Your task to perform on an android device: change the upload size in google photos Image 0: 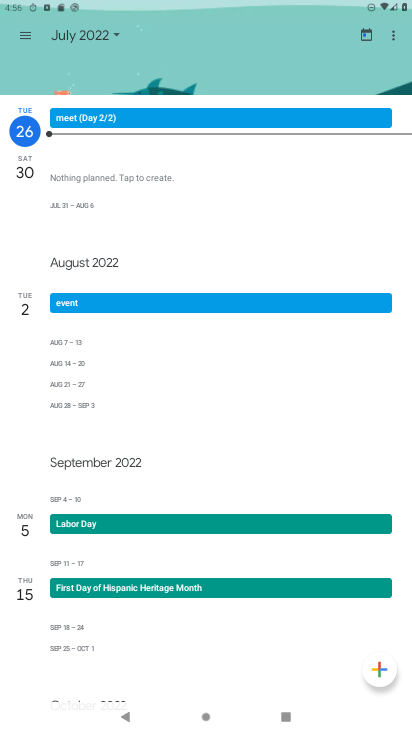
Step 0: press home button
Your task to perform on an android device: change the upload size in google photos Image 1: 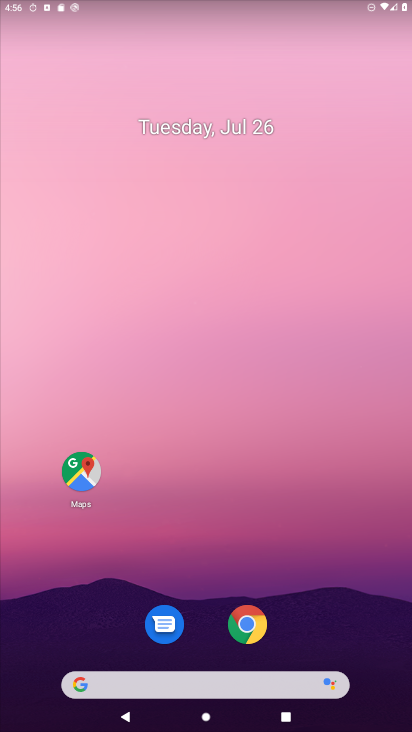
Step 1: drag from (304, 657) to (341, 52)
Your task to perform on an android device: change the upload size in google photos Image 2: 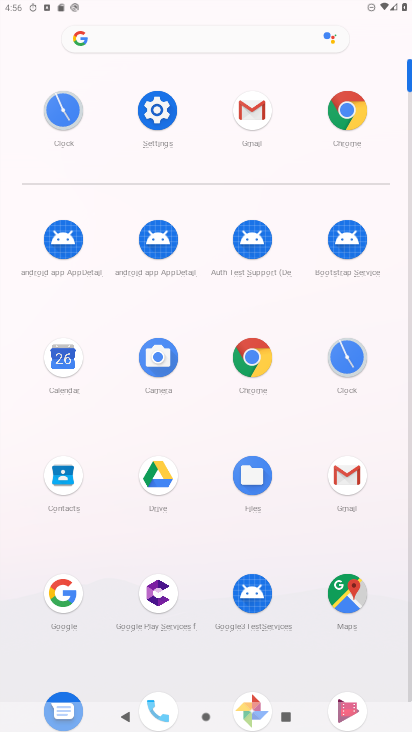
Step 2: drag from (311, 624) to (322, 210)
Your task to perform on an android device: change the upload size in google photos Image 3: 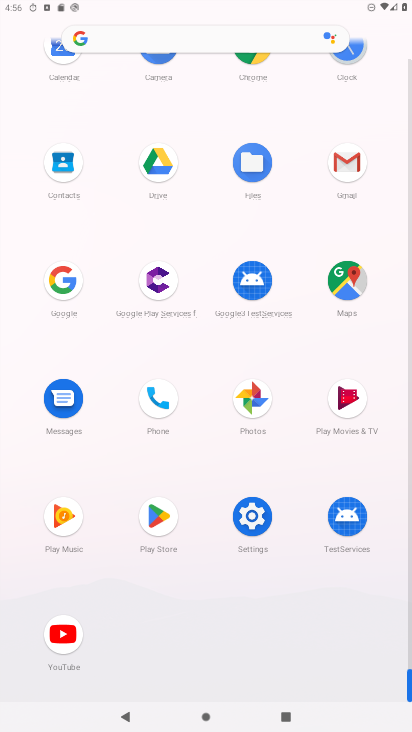
Step 3: click (263, 398)
Your task to perform on an android device: change the upload size in google photos Image 4: 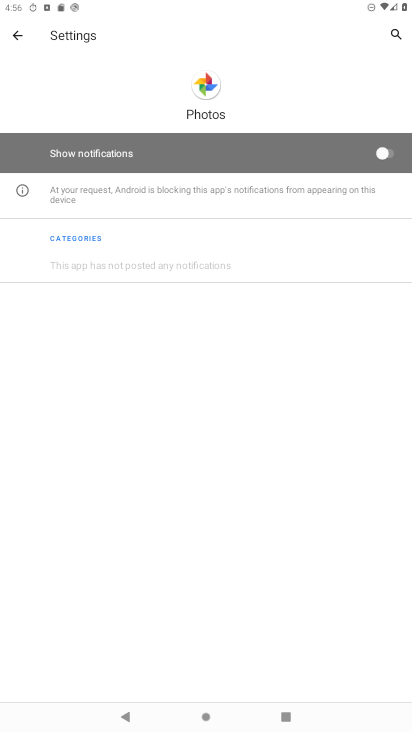
Step 4: press back button
Your task to perform on an android device: change the upload size in google photos Image 5: 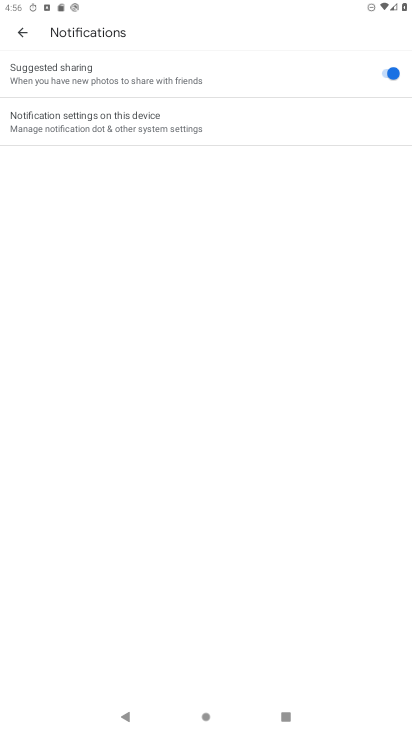
Step 5: press back button
Your task to perform on an android device: change the upload size in google photos Image 6: 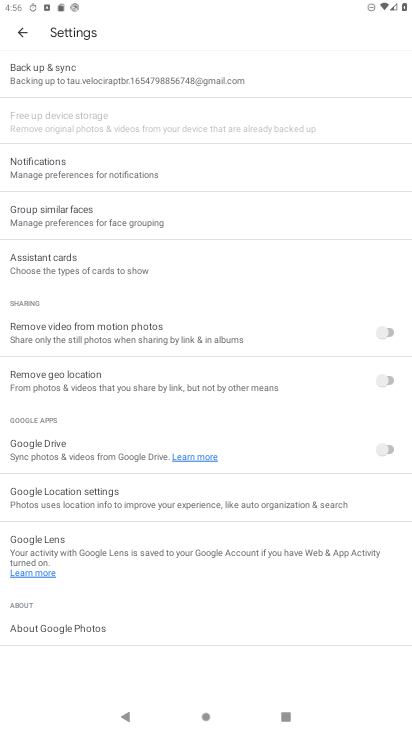
Step 6: press back button
Your task to perform on an android device: change the upload size in google photos Image 7: 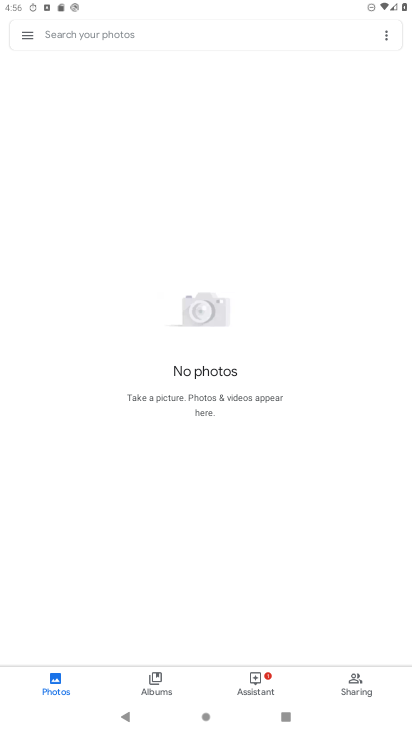
Step 7: click (33, 36)
Your task to perform on an android device: change the upload size in google photos Image 8: 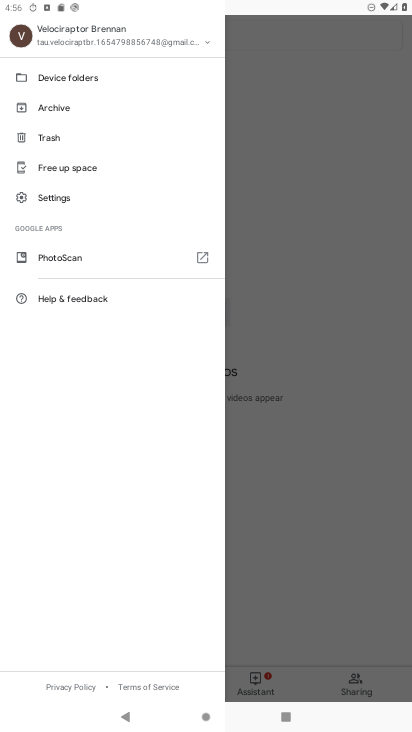
Step 8: click (73, 194)
Your task to perform on an android device: change the upload size in google photos Image 9: 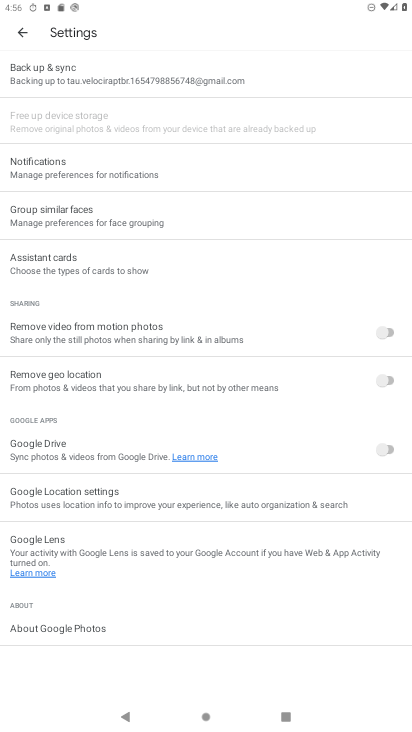
Step 9: click (244, 82)
Your task to perform on an android device: change the upload size in google photos Image 10: 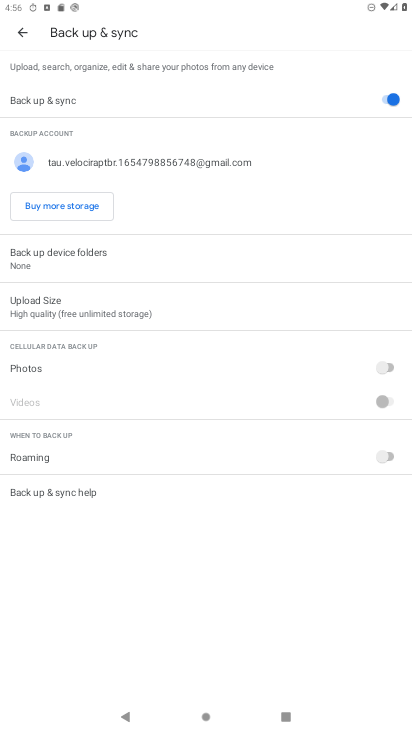
Step 10: click (94, 300)
Your task to perform on an android device: change the upload size in google photos Image 11: 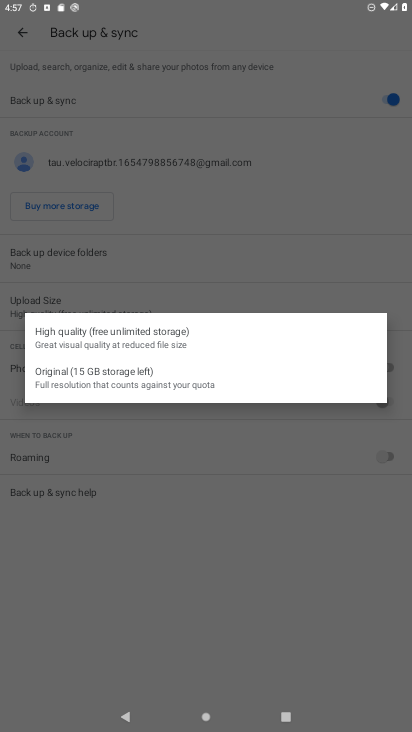
Step 11: click (113, 376)
Your task to perform on an android device: change the upload size in google photos Image 12: 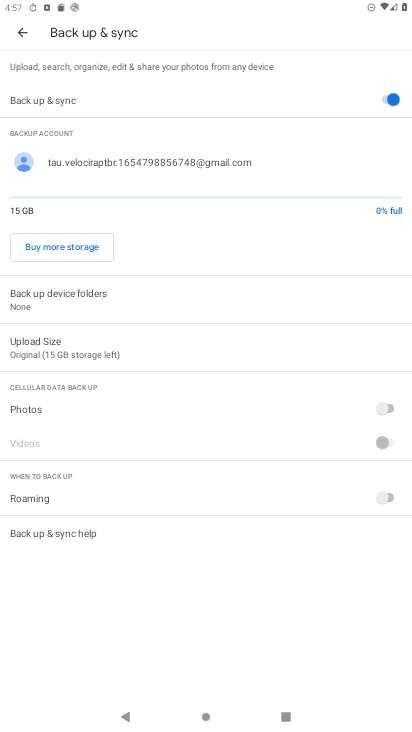
Step 12: task complete